Your task to perform on an android device: Open eBay Image 0: 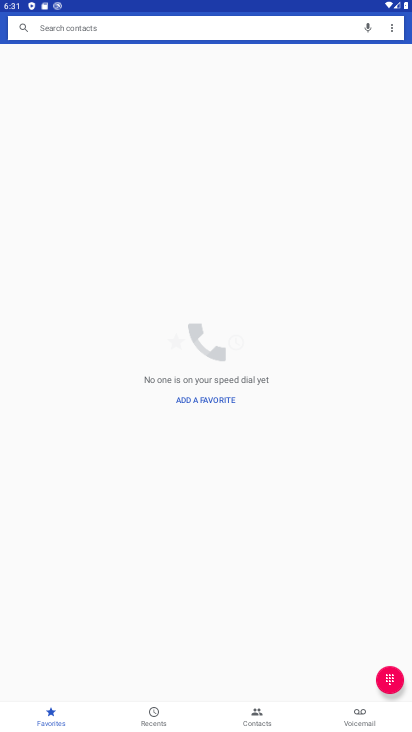
Step 0: press home button
Your task to perform on an android device: Open eBay Image 1: 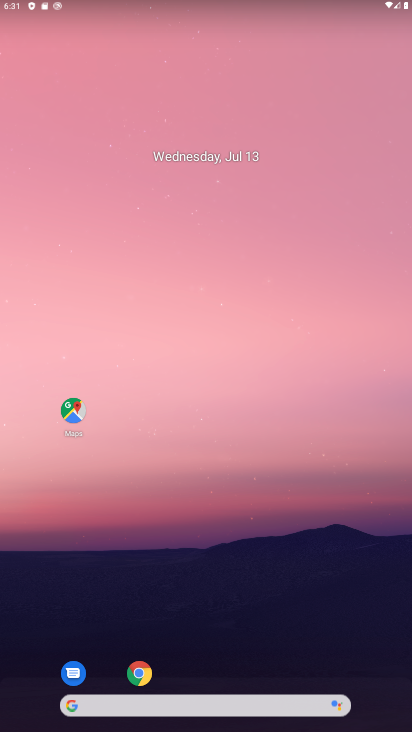
Step 1: drag from (347, 163) to (361, 36)
Your task to perform on an android device: Open eBay Image 2: 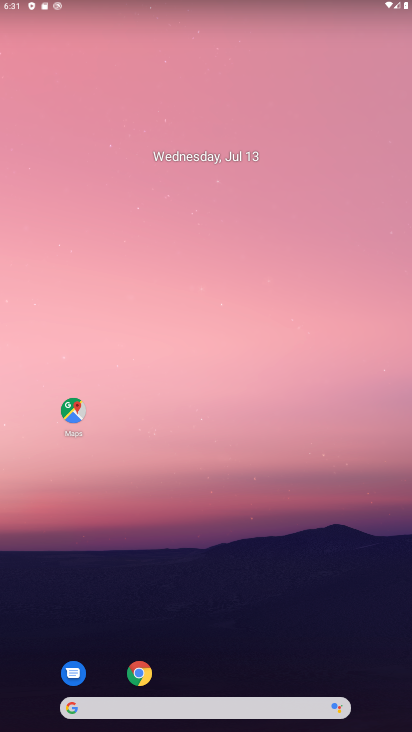
Step 2: drag from (271, 665) to (354, 0)
Your task to perform on an android device: Open eBay Image 3: 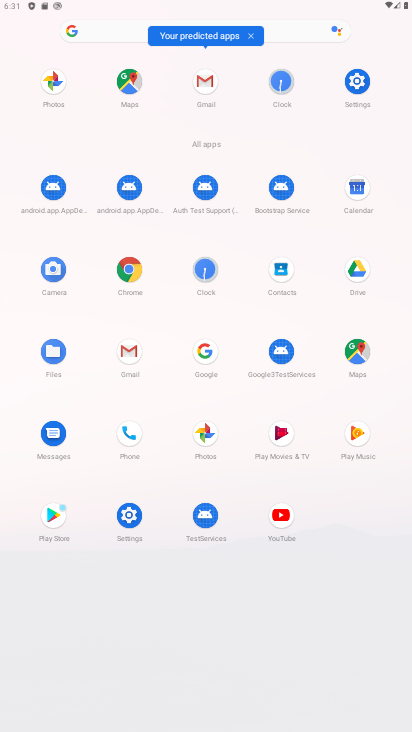
Step 3: click (129, 263)
Your task to perform on an android device: Open eBay Image 4: 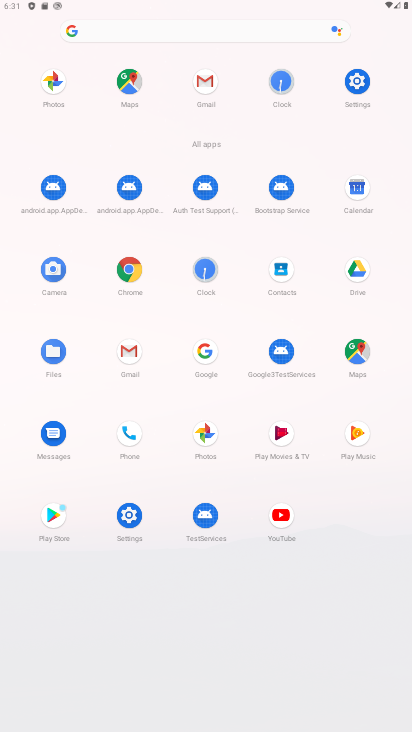
Step 4: click (130, 257)
Your task to perform on an android device: Open eBay Image 5: 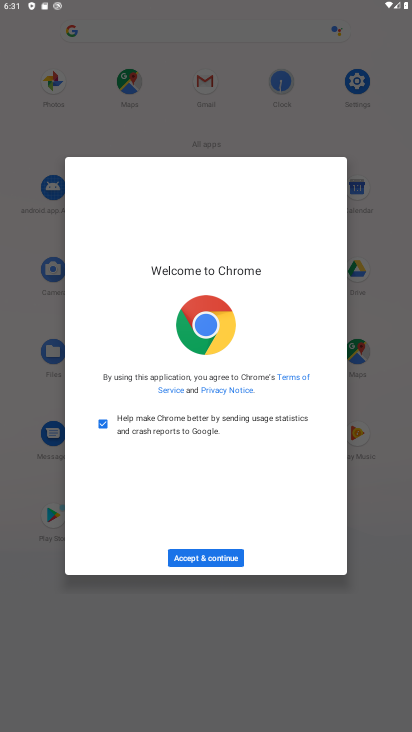
Step 5: click (227, 550)
Your task to perform on an android device: Open eBay Image 6: 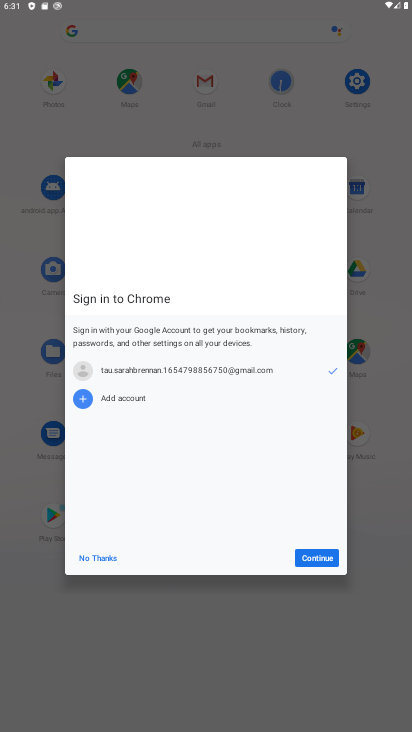
Step 6: click (114, 558)
Your task to perform on an android device: Open eBay Image 7: 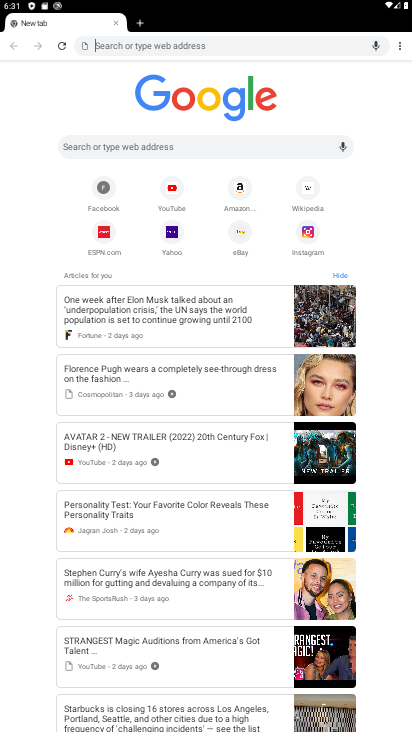
Step 7: click (240, 225)
Your task to perform on an android device: Open eBay Image 8: 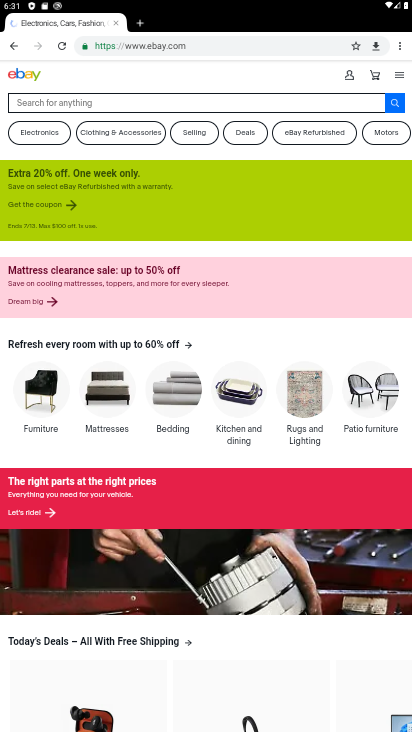
Step 8: task complete